Your task to perform on an android device: see creations saved in the google photos Image 0: 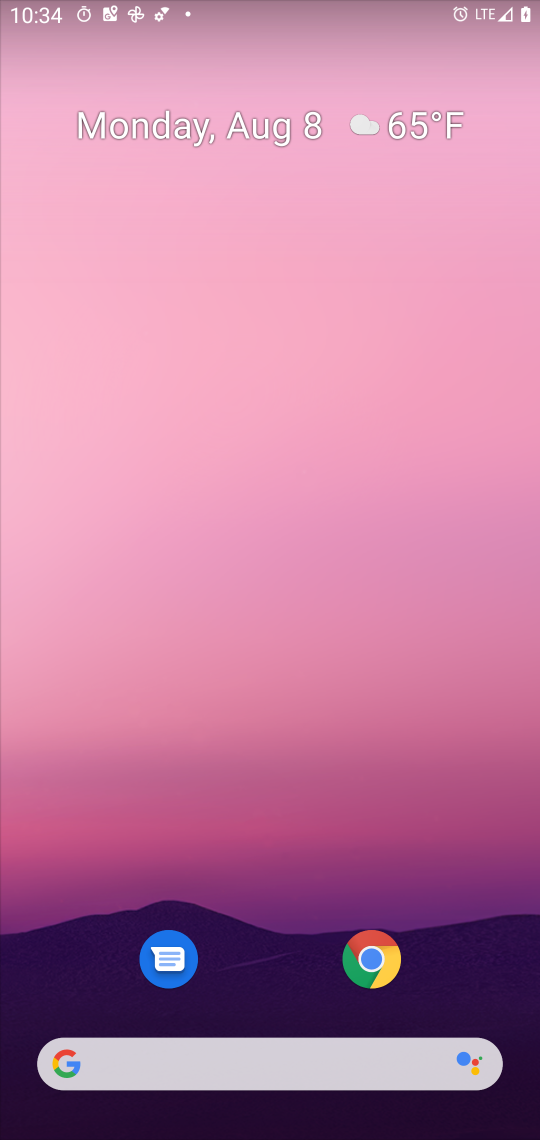
Step 0: drag from (458, 979) to (200, 41)
Your task to perform on an android device: see creations saved in the google photos Image 1: 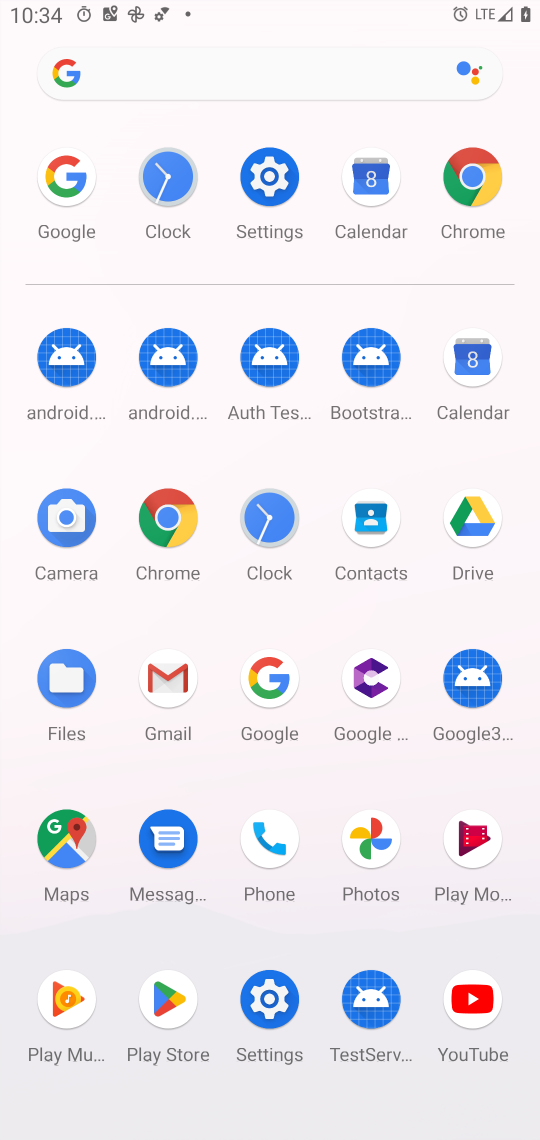
Step 1: click (388, 873)
Your task to perform on an android device: see creations saved in the google photos Image 2: 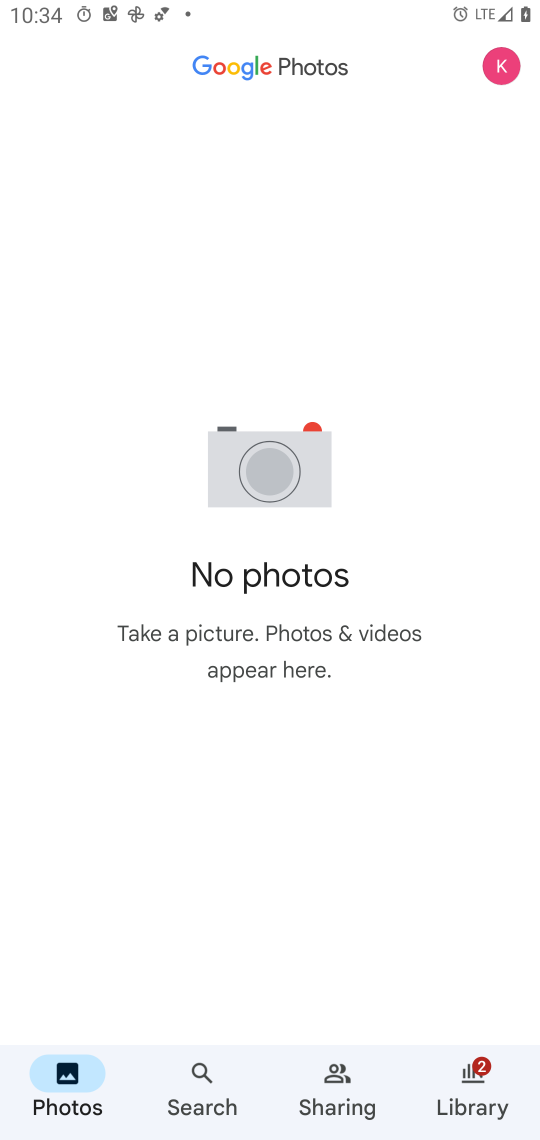
Step 2: click (181, 1085)
Your task to perform on an android device: see creations saved in the google photos Image 3: 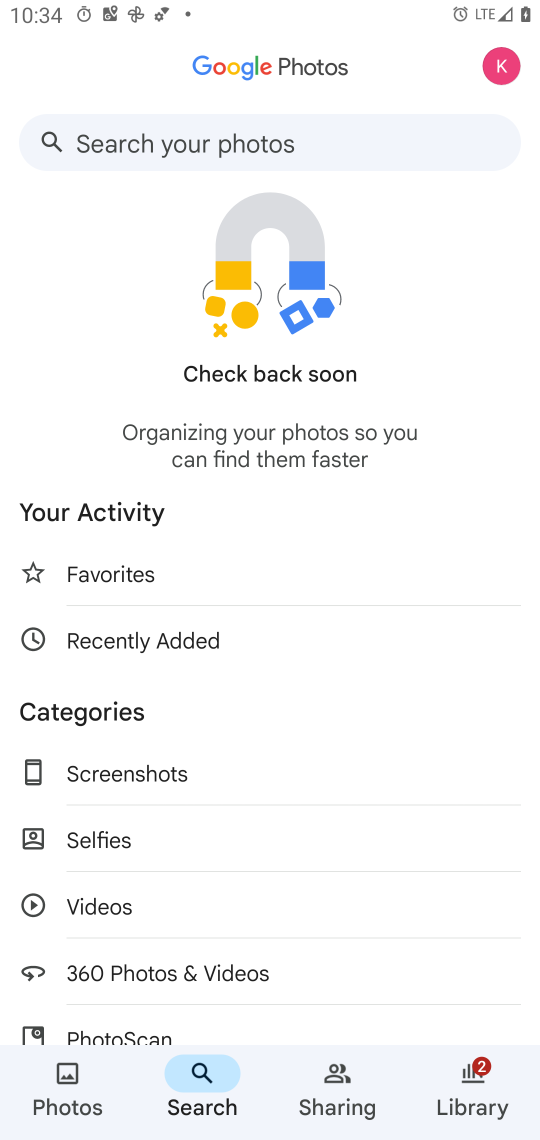
Step 3: drag from (221, 990) to (223, 128)
Your task to perform on an android device: see creations saved in the google photos Image 4: 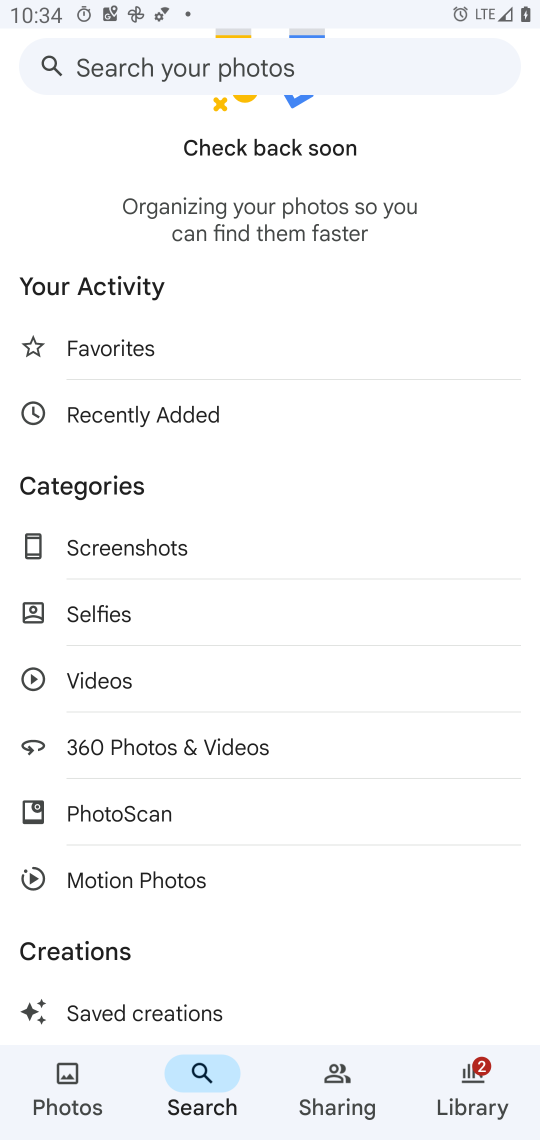
Step 4: click (104, 1010)
Your task to perform on an android device: see creations saved in the google photos Image 5: 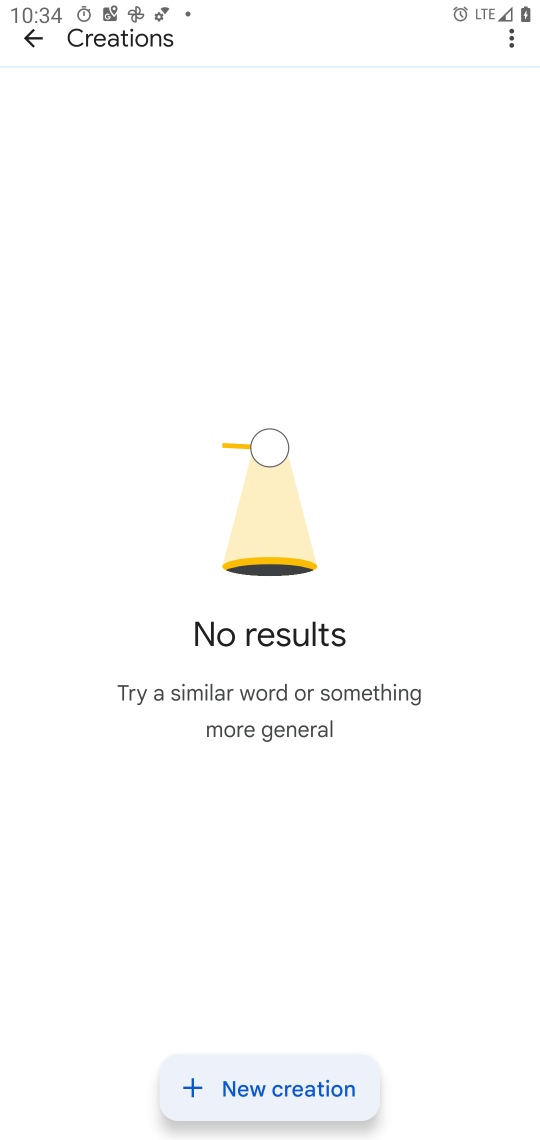
Step 5: task complete